Your task to perform on an android device: Open sound settings Image 0: 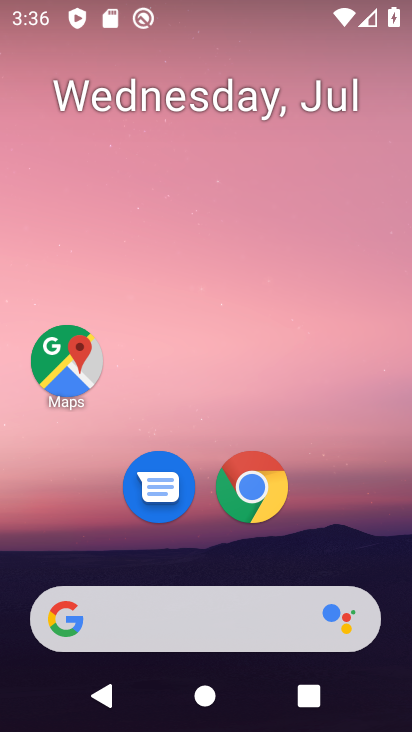
Step 0: drag from (206, 560) to (287, 100)
Your task to perform on an android device: Open sound settings Image 1: 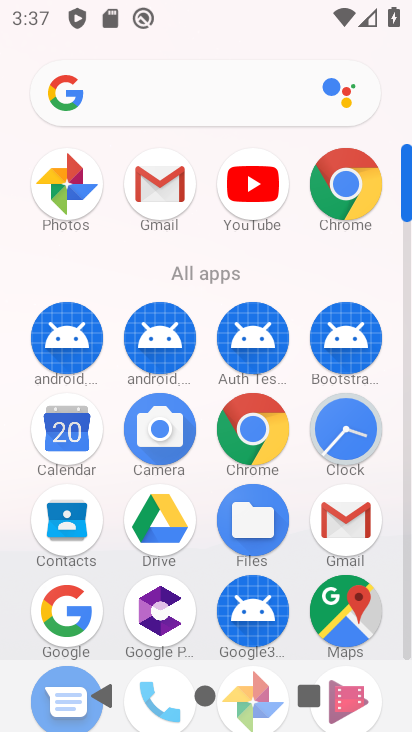
Step 1: drag from (123, 546) to (173, 162)
Your task to perform on an android device: Open sound settings Image 2: 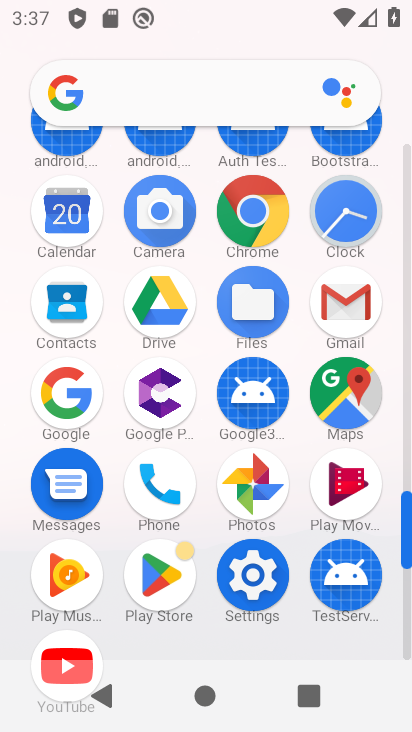
Step 2: click (259, 559)
Your task to perform on an android device: Open sound settings Image 3: 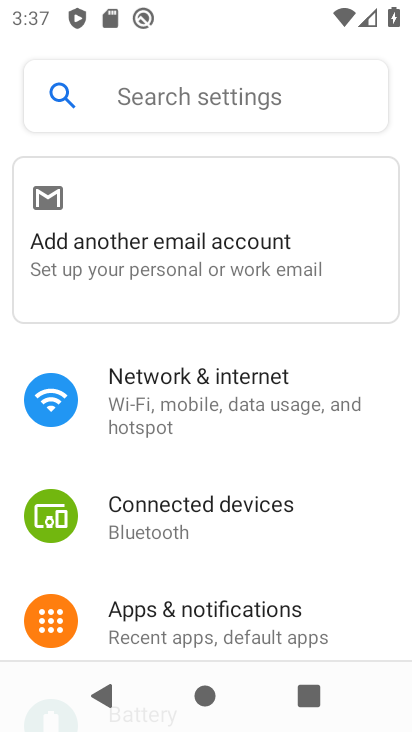
Step 3: drag from (231, 554) to (218, 102)
Your task to perform on an android device: Open sound settings Image 4: 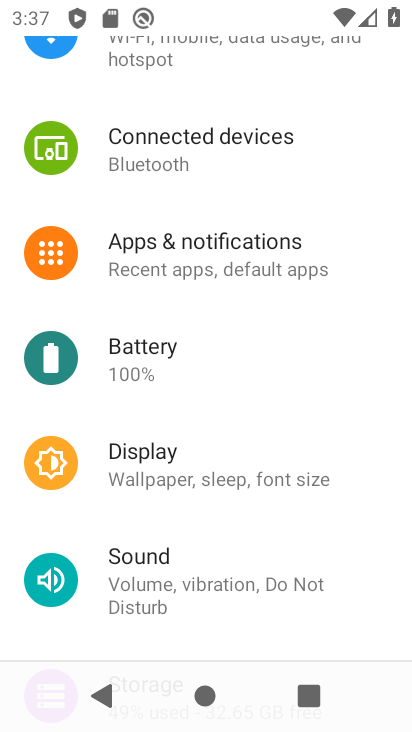
Step 4: click (158, 569)
Your task to perform on an android device: Open sound settings Image 5: 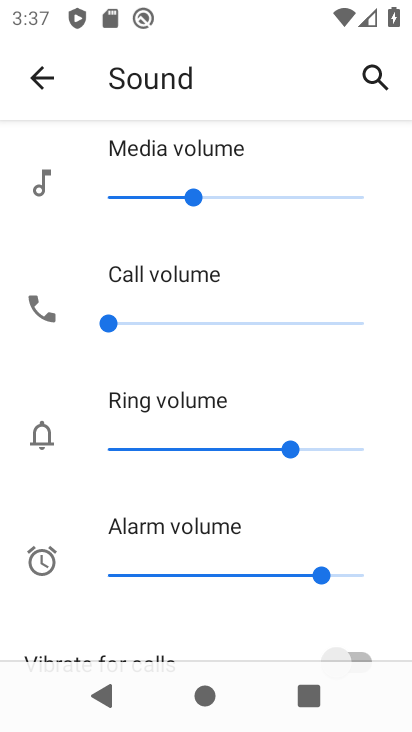
Step 5: task complete